Your task to perform on an android device: Open calendar and show me the second week of next month Image 0: 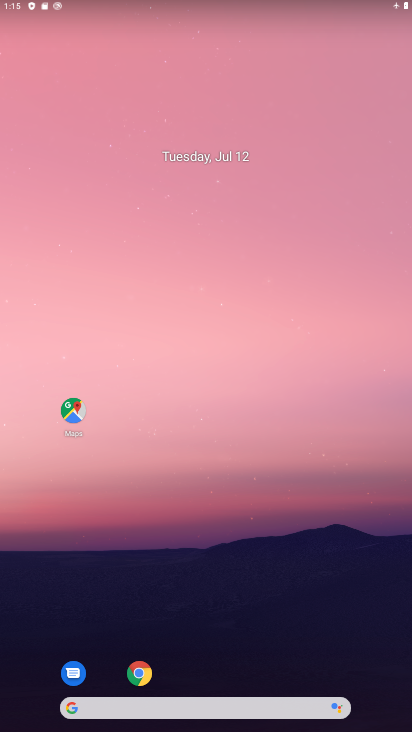
Step 0: drag from (178, 554) to (185, 181)
Your task to perform on an android device: Open calendar and show me the second week of next month Image 1: 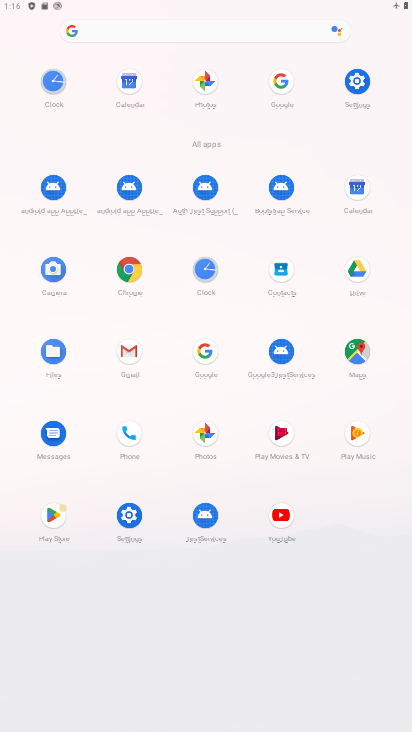
Step 1: click (356, 180)
Your task to perform on an android device: Open calendar and show me the second week of next month Image 2: 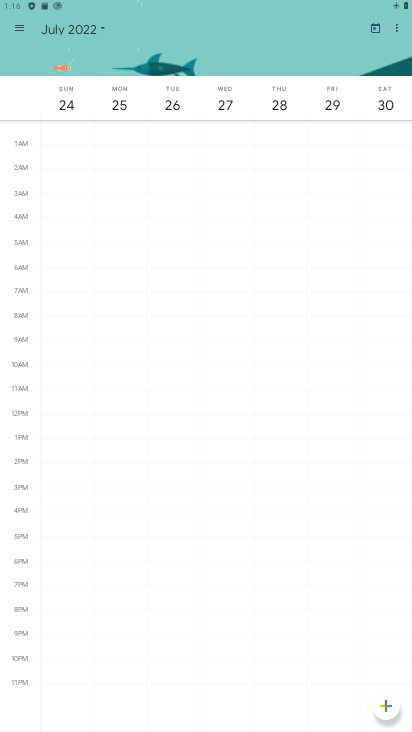
Step 2: task complete